Your task to perform on an android device: Go to Amazon Image 0: 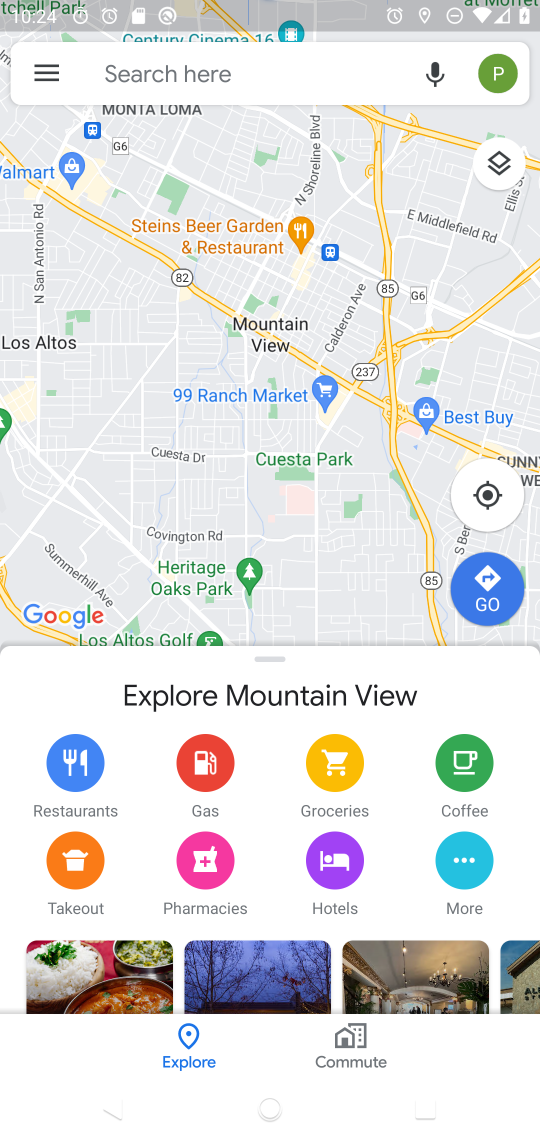
Step 0: press home button
Your task to perform on an android device: Go to Amazon Image 1: 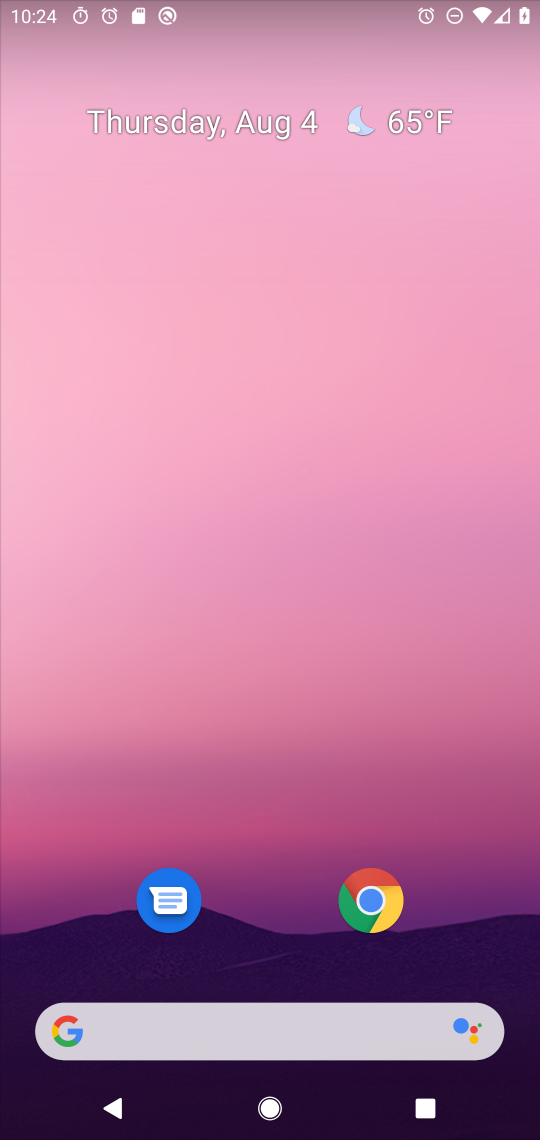
Step 1: click (369, 904)
Your task to perform on an android device: Go to Amazon Image 2: 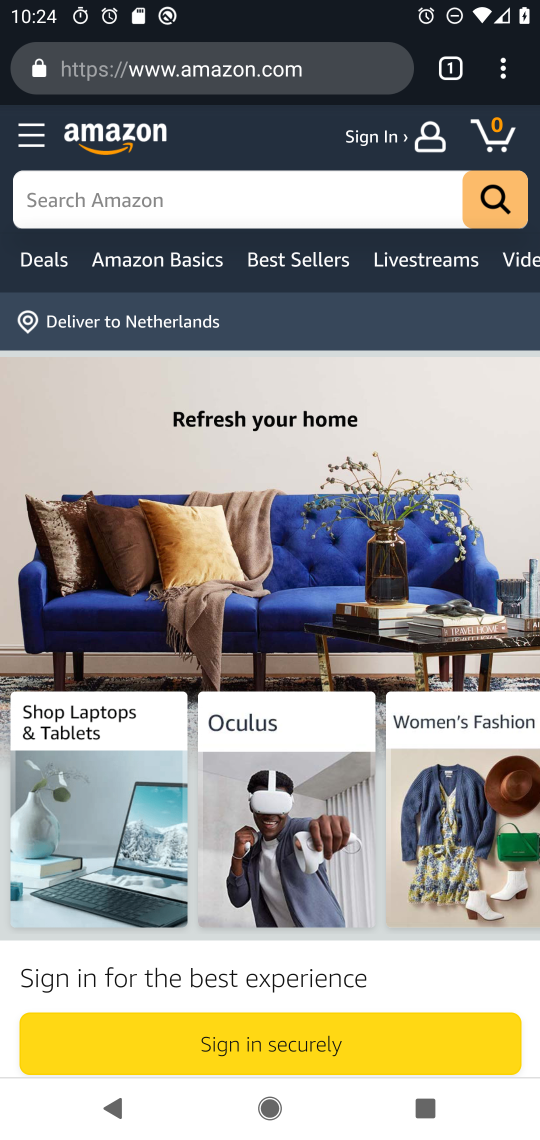
Step 2: click (319, 78)
Your task to perform on an android device: Go to Amazon Image 3: 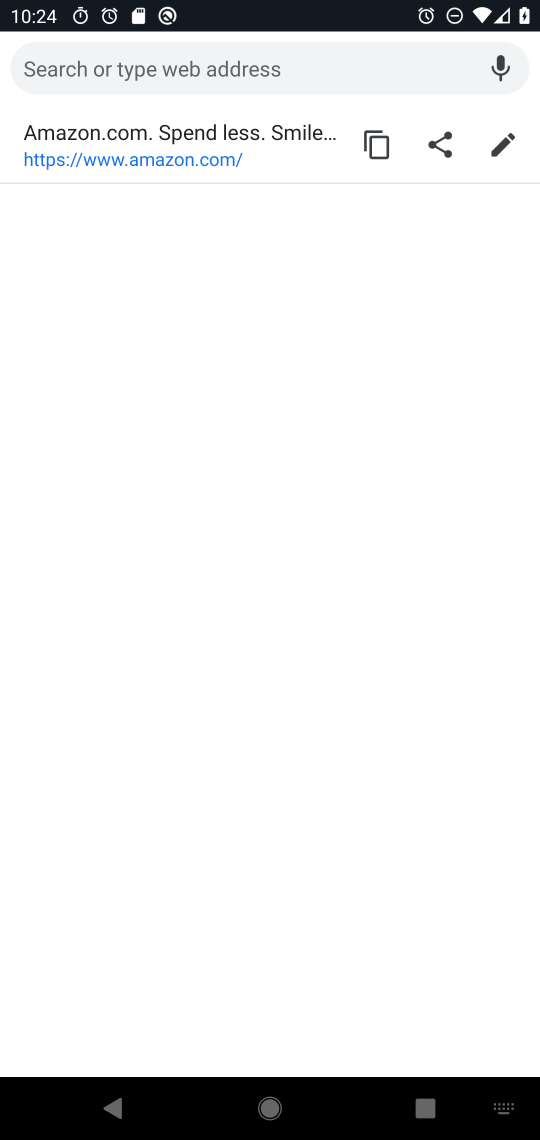
Step 3: click (164, 157)
Your task to perform on an android device: Go to Amazon Image 4: 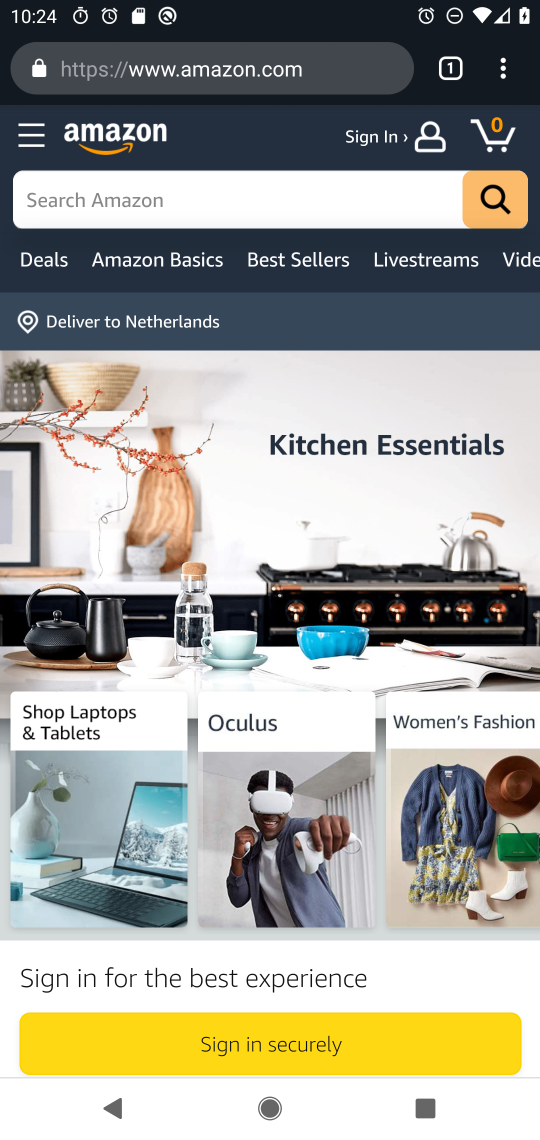
Step 4: task complete